Your task to perform on an android device: change alarm snooze length Image 0: 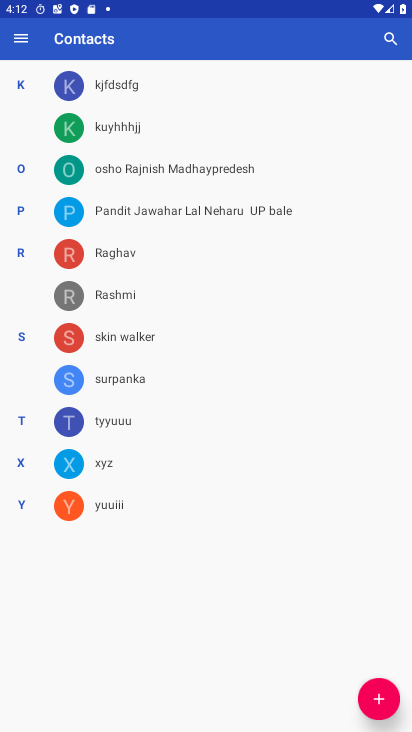
Step 0: press back button
Your task to perform on an android device: change alarm snooze length Image 1: 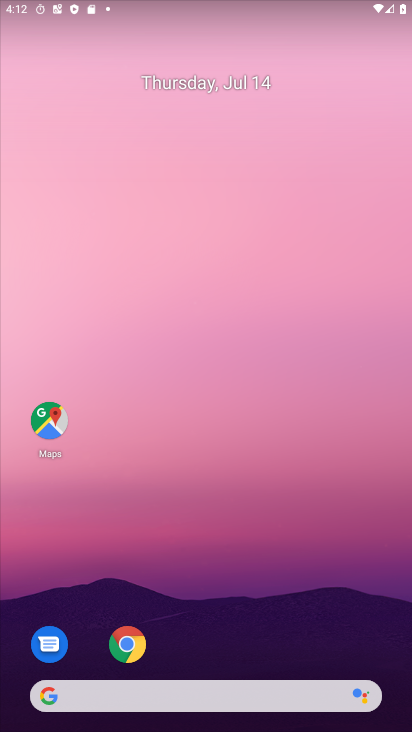
Step 1: drag from (187, 620) to (245, 24)
Your task to perform on an android device: change alarm snooze length Image 2: 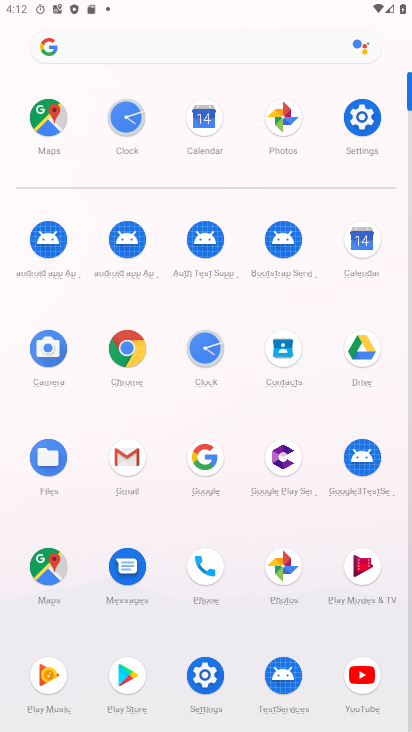
Step 2: click (202, 353)
Your task to perform on an android device: change alarm snooze length Image 3: 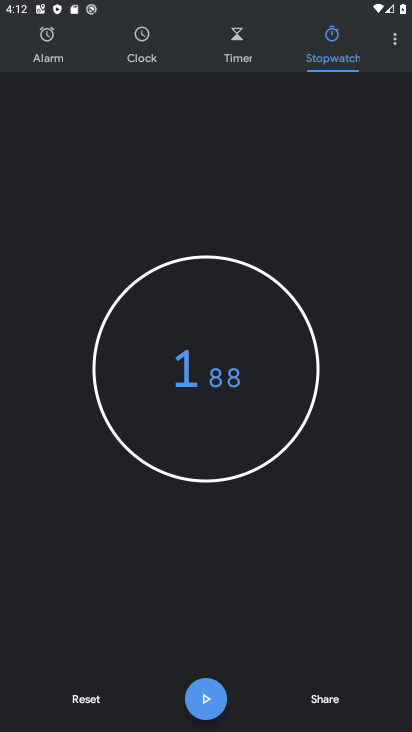
Step 3: click (395, 34)
Your task to perform on an android device: change alarm snooze length Image 4: 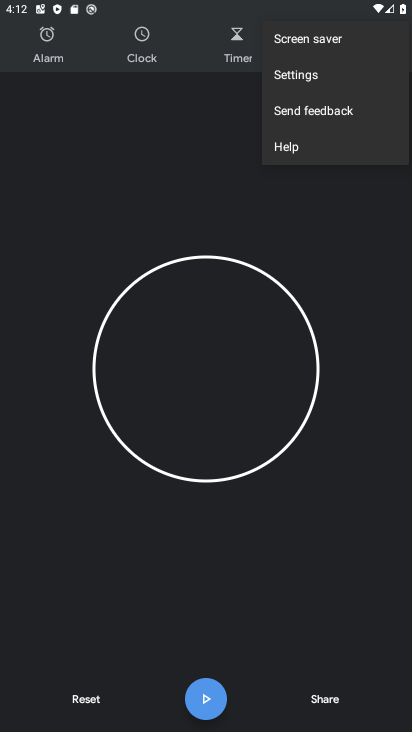
Step 4: click (303, 73)
Your task to perform on an android device: change alarm snooze length Image 5: 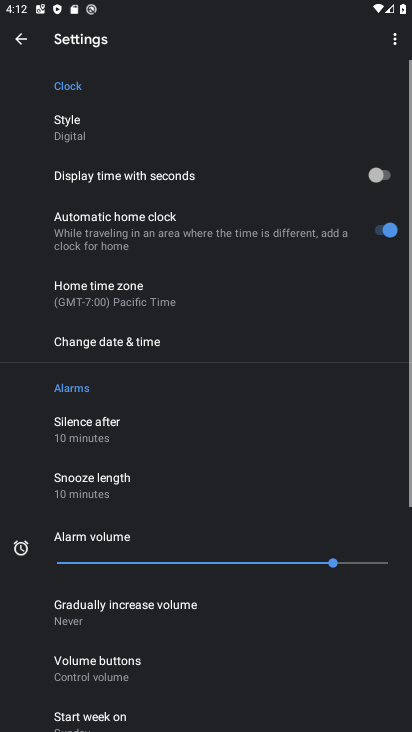
Step 5: click (128, 478)
Your task to perform on an android device: change alarm snooze length Image 6: 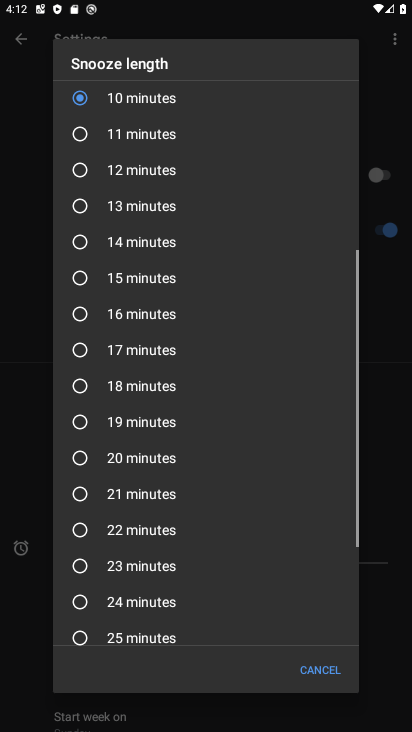
Step 6: click (85, 144)
Your task to perform on an android device: change alarm snooze length Image 7: 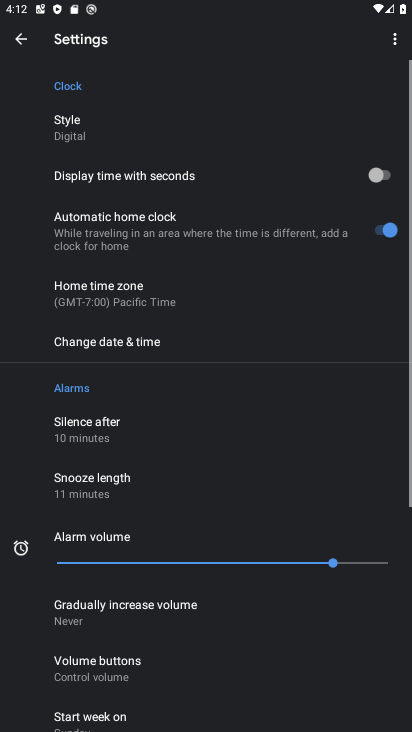
Step 7: task complete